Your task to perform on an android device: move an email to a new category in the gmail app Image 0: 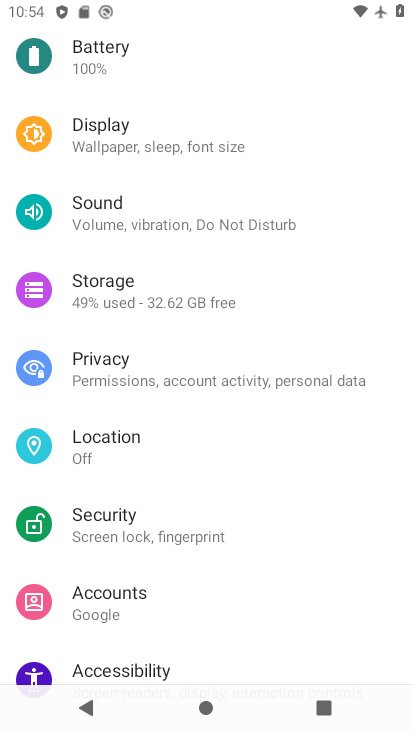
Step 0: press home button
Your task to perform on an android device: move an email to a new category in the gmail app Image 1: 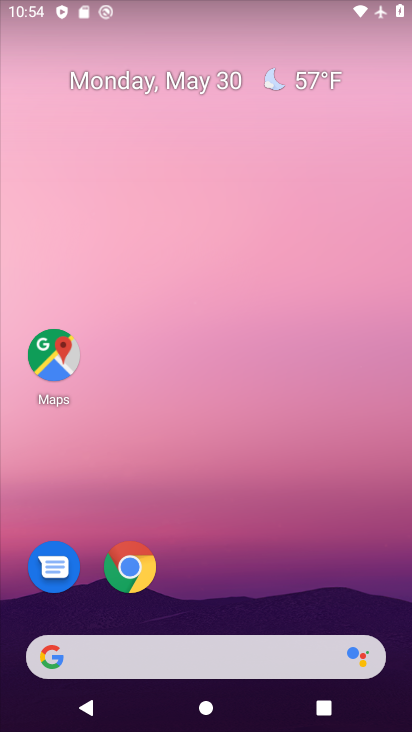
Step 1: drag from (219, 624) to (233, 170)
Your task to perform on an android device: move an email to a new category in the gmail app Image 2: 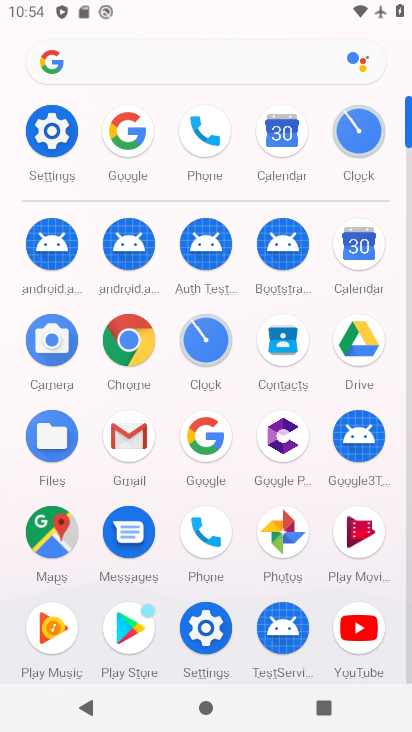
Step 2: click (126, 417)
Your task to perform on an android device: move an email to a new category in the gmail app Image 3: 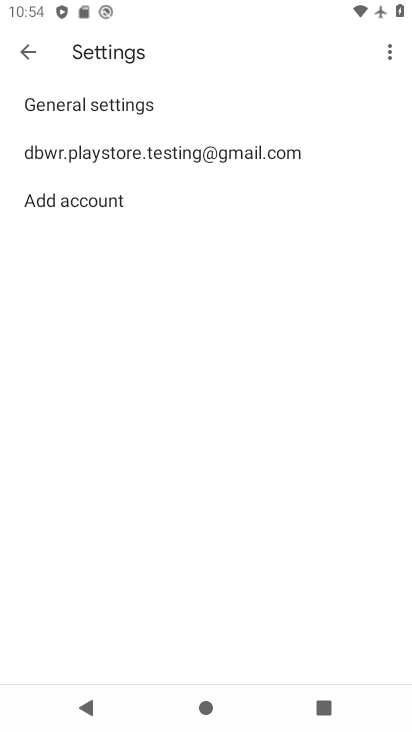
Step 3: click (29, 59)
Your task to perform on an android device: move an email to a new category in the gmail app Image 4: 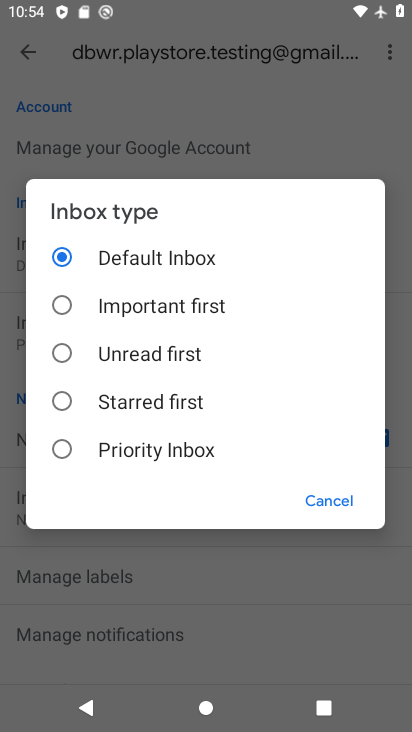
Step 4: click (316, 496)
Your task to perform on an android device: move an email to a new category in the gmail app Image 5: 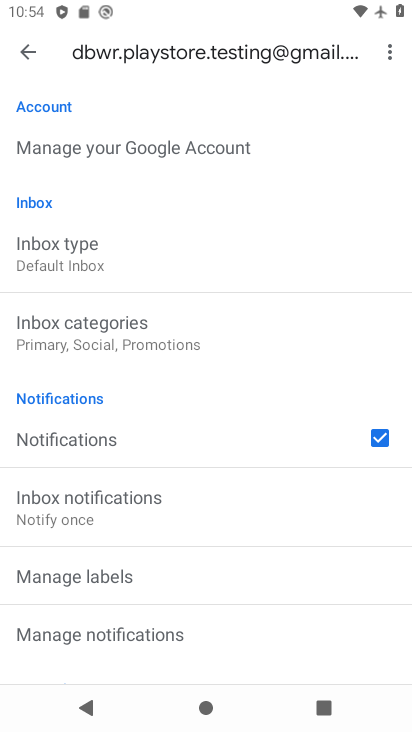
Step 5: click (26, 65)
Your task to perform on an android device: move an email to a new category in the gmail app Image 6: 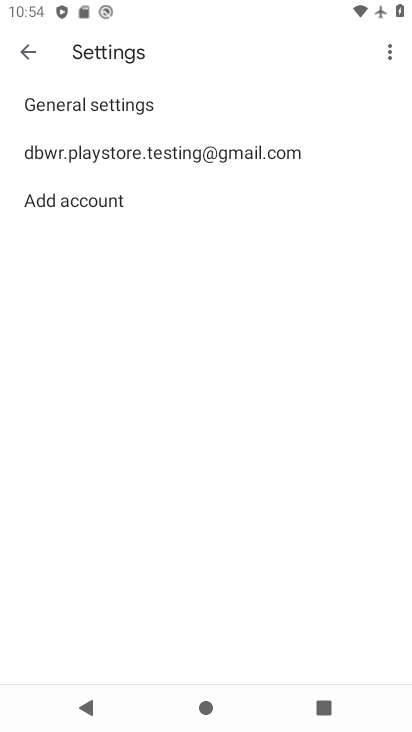
Step 6: click (22, 59)
Your task to perform on an android device: move an email to a new category in the gmail app Image 7: 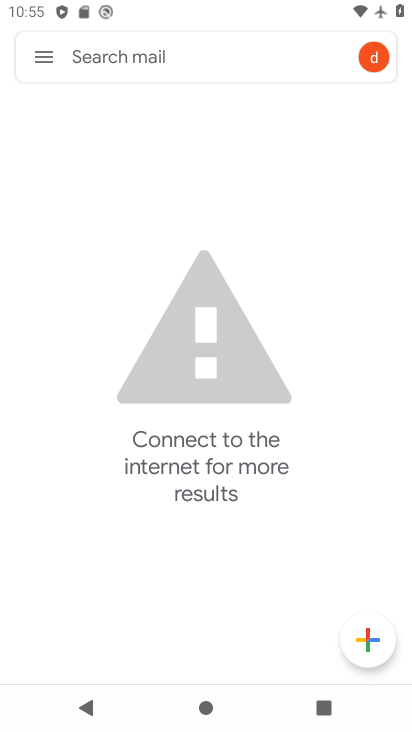
Step 7: task complete